Your task to perform on an android device: What's on my calendar today? Image 0: 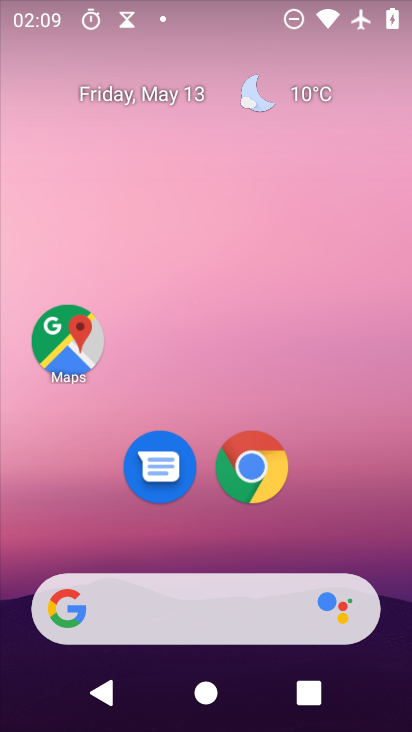
Step 0: drag from (299, 464) to (229, 58)
Your task to perform on an android device: What's on my calendar today? Image 1: 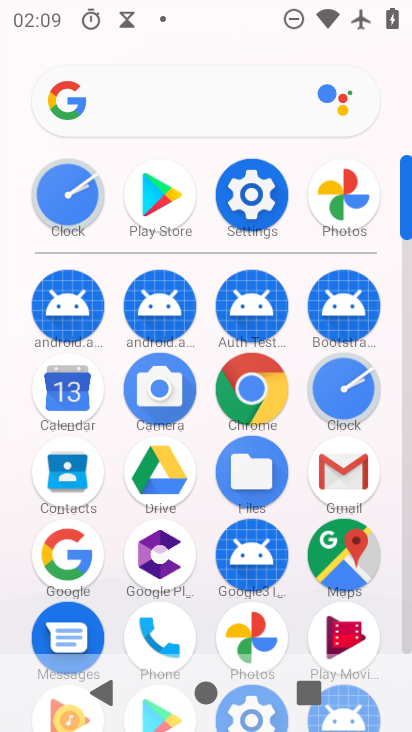
Step 1: click (76, 388)
Your task to perform on an android device: What's on my calendar today? Image 2: 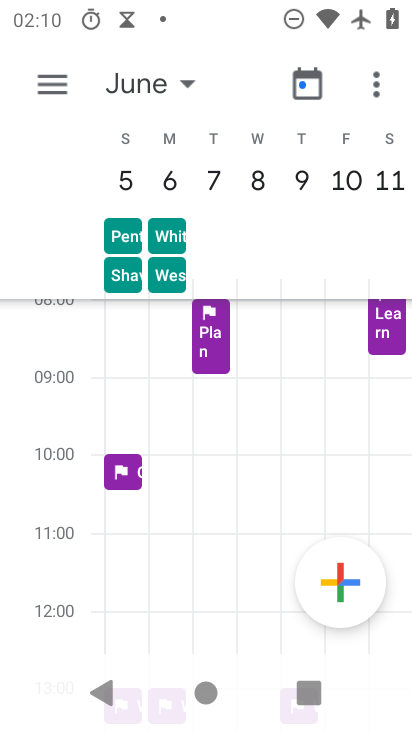
Step 2: click (155, 81)
Your task to perform on an android device: What's on my calendar today? Image 3: 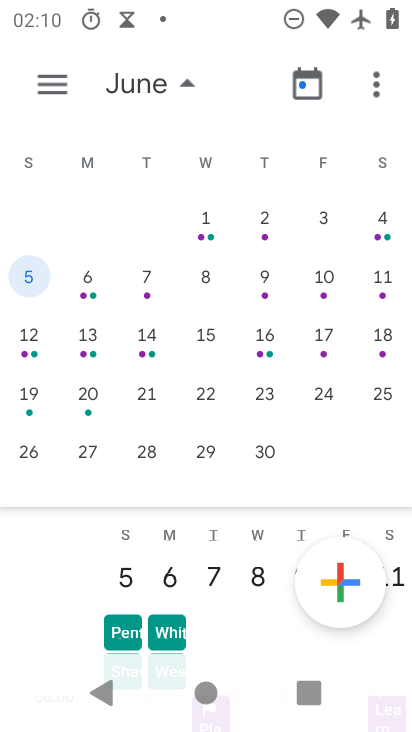
Step 3: drag from (55, 314) to (411, 200)
Your task to perform on an android device: What's on my calendar today? Image 4: 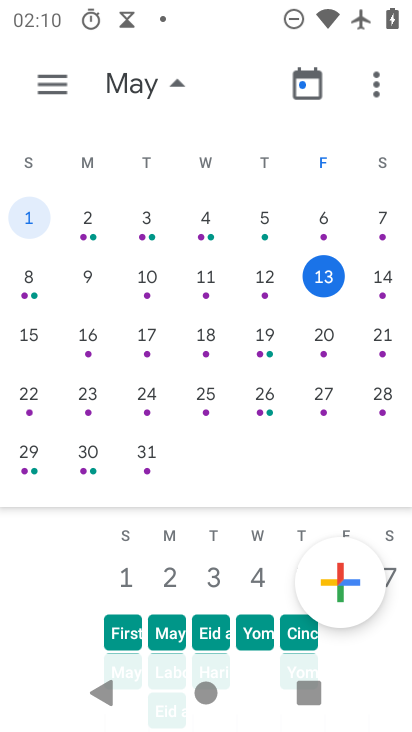
Step 4: click (36, 268)
Your task to perform on an android device: What's on my calendar today? Image 5: 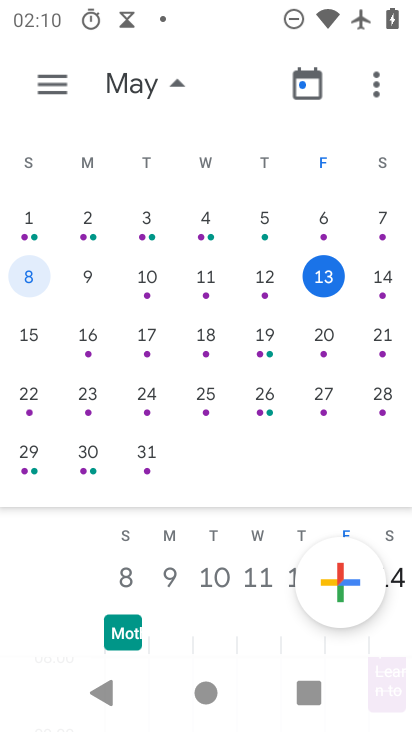
Step 5: click (323, 269)
Your task to perform on an android device: What's on my calendar today? Image 6: 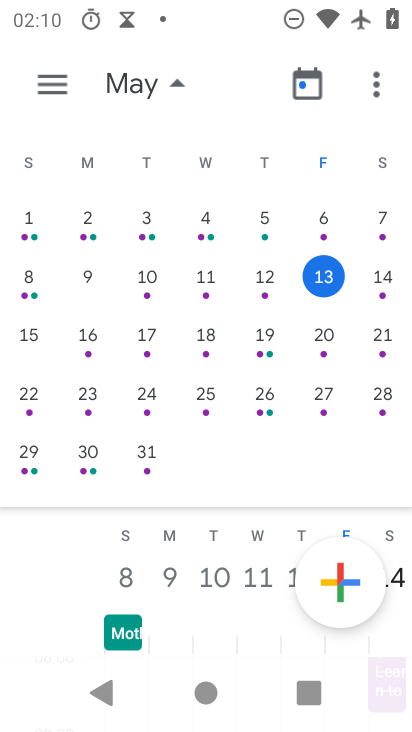
Step 6: task complete